Your task to perform on an android device: Show me popular games on the Play Store Image 0: 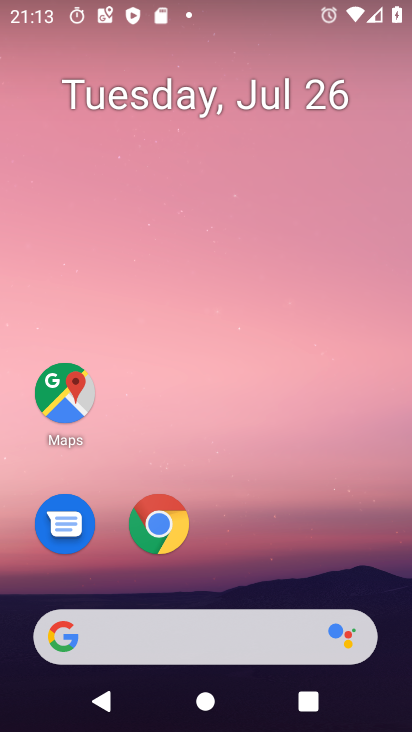
Step 0: drag from (252, 493) to (210, 58)
Your task to perform on an android device: Show me popular games on the Play Store Image 1: 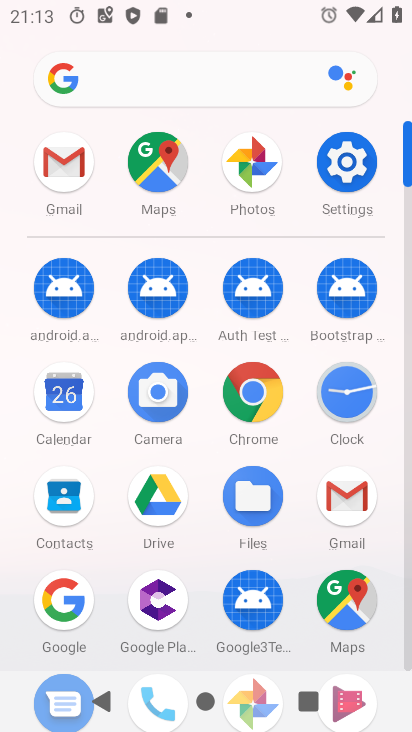
Step 1: drag from (208, 543) to (210, 173)
Your task to perform on an android device: Show me popular games on the Play Store Image 2: 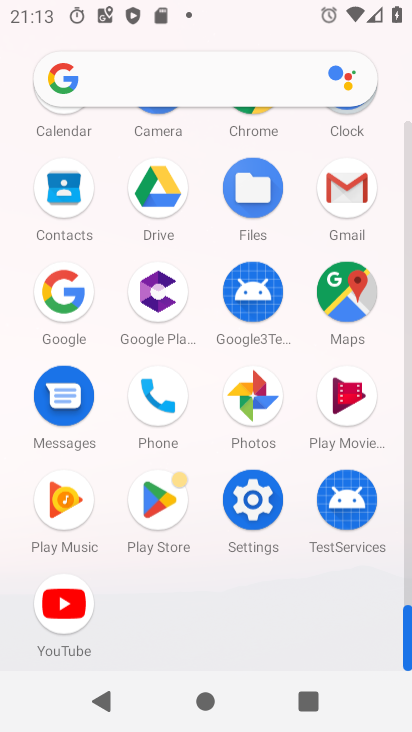
Step 2: drag from (214, 136) to (220, 49)
Your task to perform on an android device: Show me popular games on the Play Store Image 3: 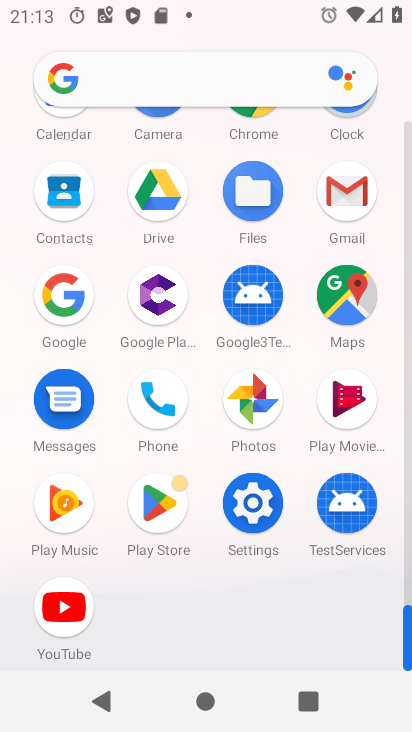
Step 3: click (165, 504)
Your task to perform on an android device: Show me popular games on the Play Store Image 4: 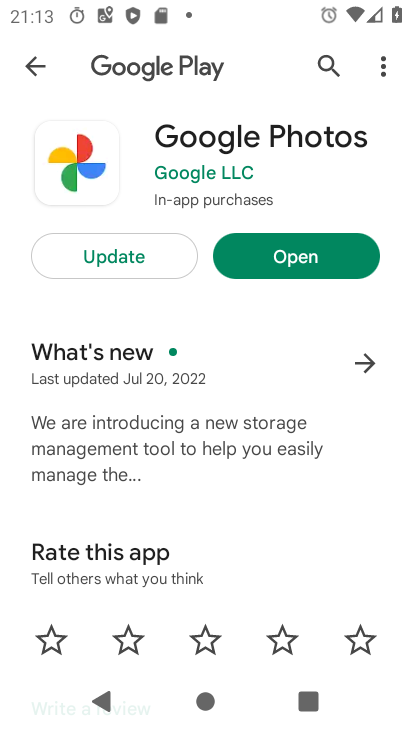
Step 4: click (28, 62)
Your task to perform on an android device: Show me popular games on the Play Store Image 5: 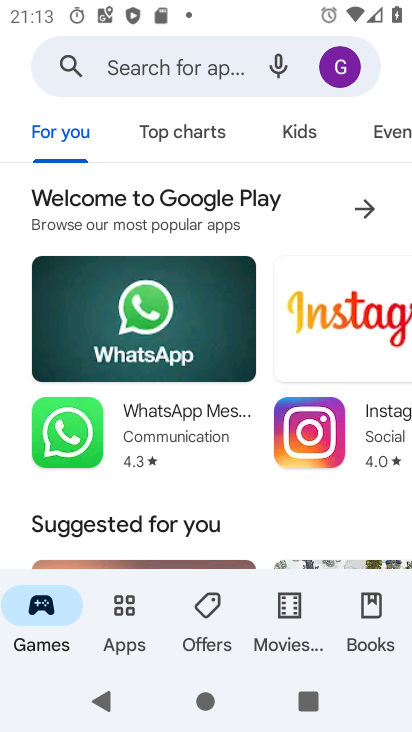
Step 5: drag from (205, 457) to (199, 200)
Your task to perform on an android device: Show me popular games on the Play Store Image 6: 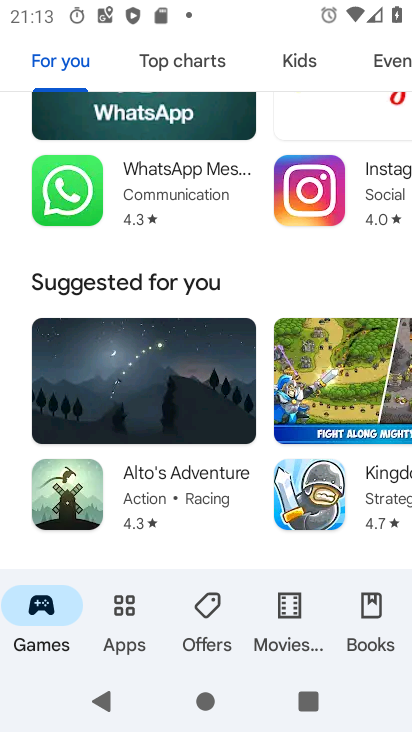
Step 6: click (195, 147)
Your task to perform on an android device: Show me popular games on the Play Store Image 7: 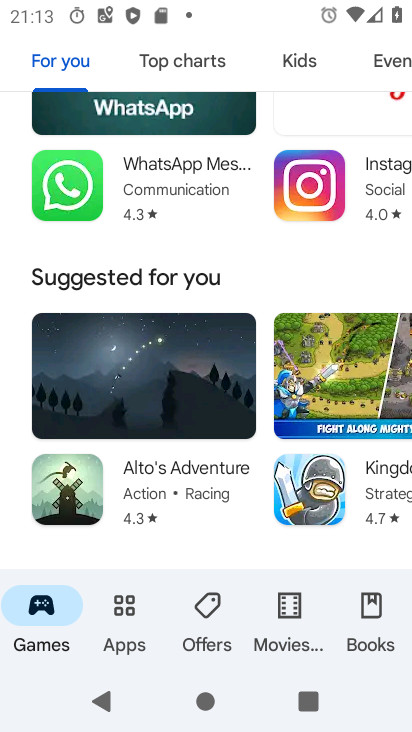
Step 7: click (194, 71)
Your task to perform on an android device: Show me popular games on the Play Store Image 8: 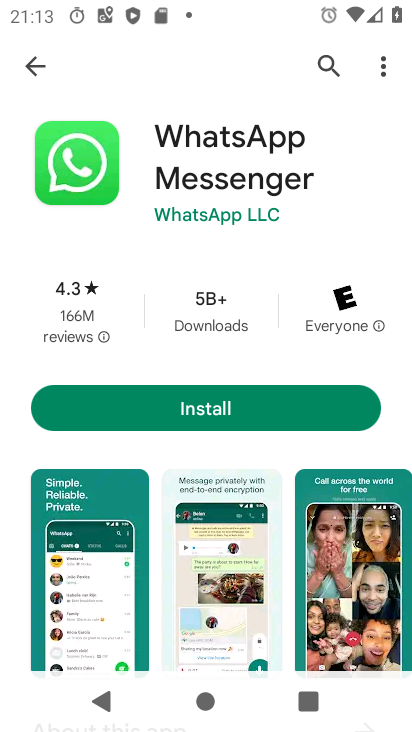
Step 8: click (37, 66)
Your task to perform on an android device: Show me popular games on the Play Store Image 9: 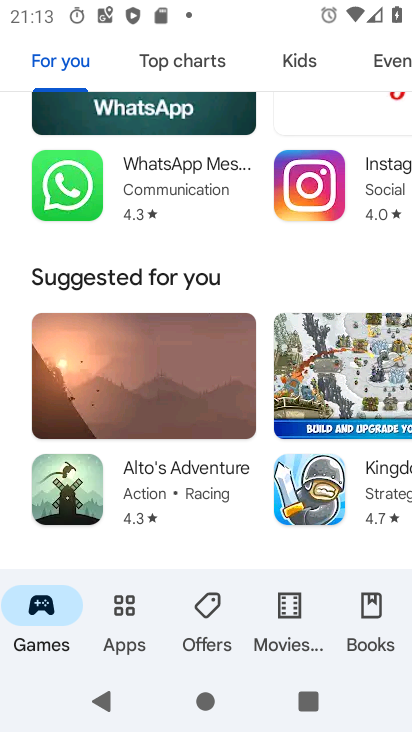
Step 9: drag from (192, 517) to (191, 139)
Your task to perform on an android device: Show me popular games on the Play Store Image 10: 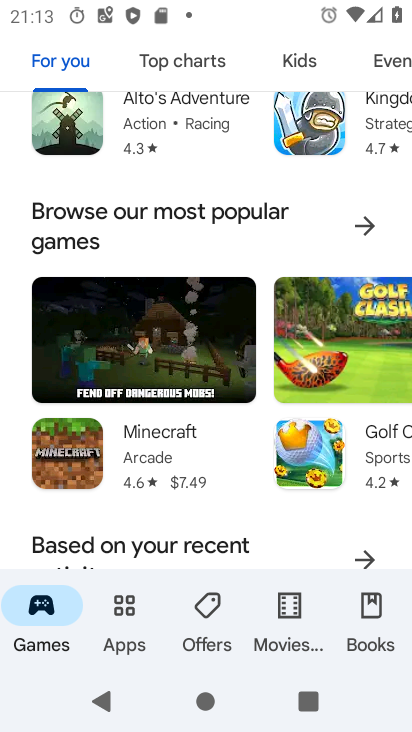
Step 10: click (370, 218)
Your task to perform on an android device: Show me popular games on the Play Store Image 11: 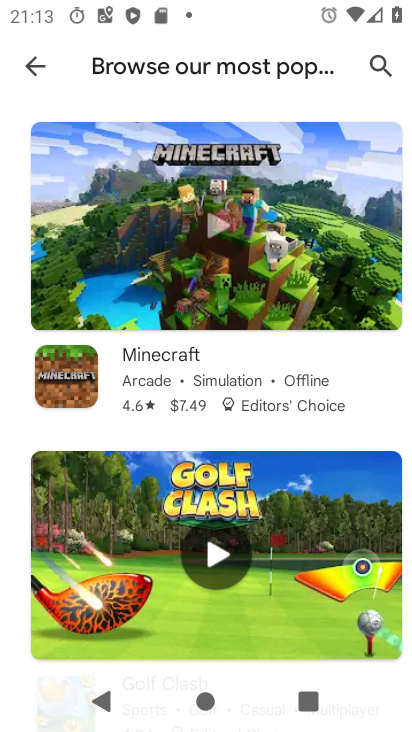
Step 11: click (219, 230)
Your task to perform on an android device: Show me popular games on the Play Store Image 12: 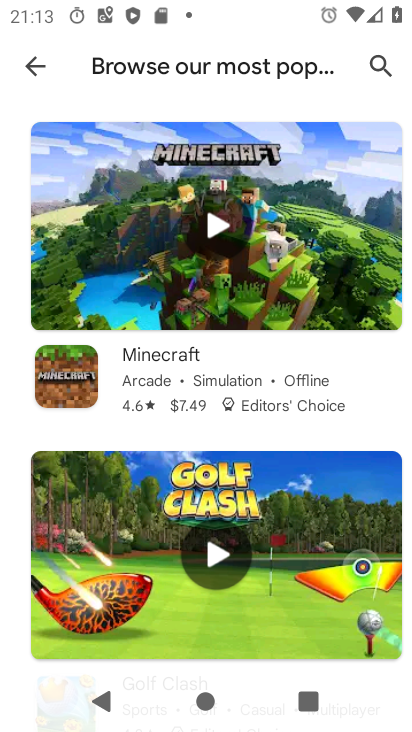
Step 12: click (219, 223)
Your task to perform on an android device: Show me popular games on the Play Store Image 13: 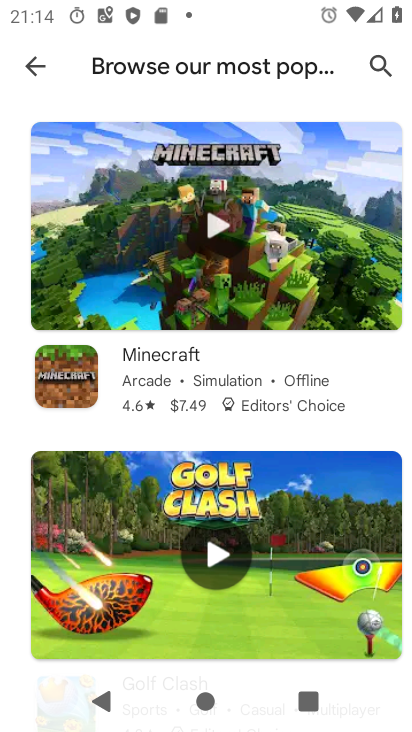
Step 13: task complete